Your task to perform on an android device: Check the news Image 0: 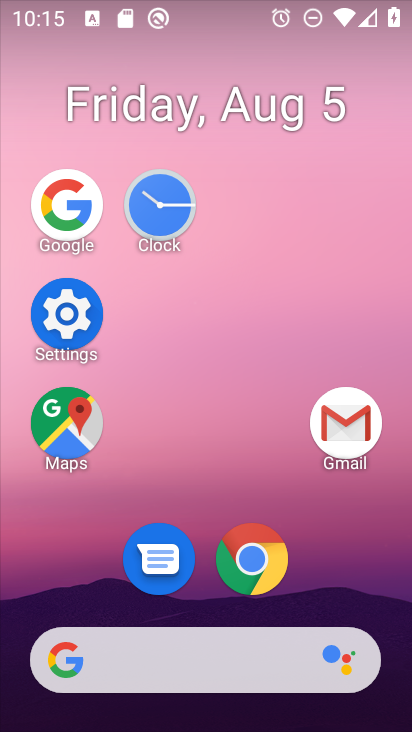
Step 0: click (75, 196)
Your task to perform on an android device: Check the news Image 1: 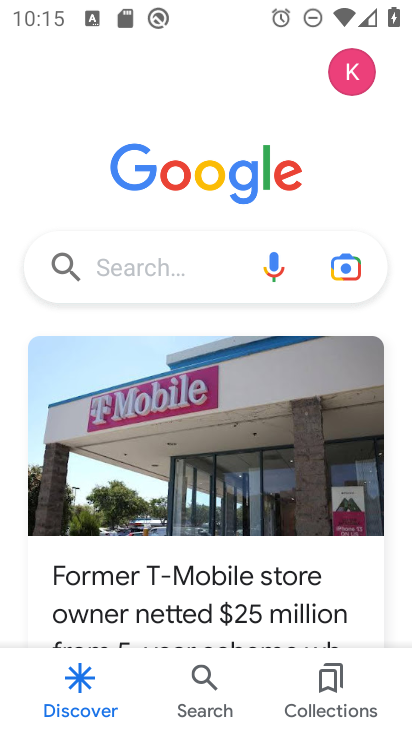
Step 1: click (168, 264)
Your task to perform on an android device: Check the news Image 2: 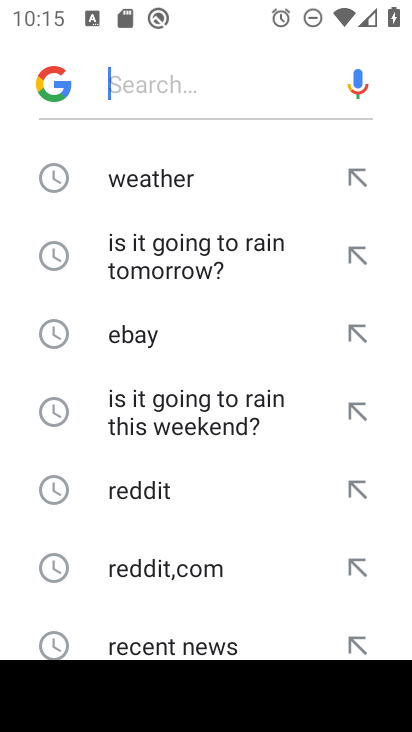
Step 2: drag from (143, 493) to (137, 210)
Your task to perform on an android device: Check the news Image 3: 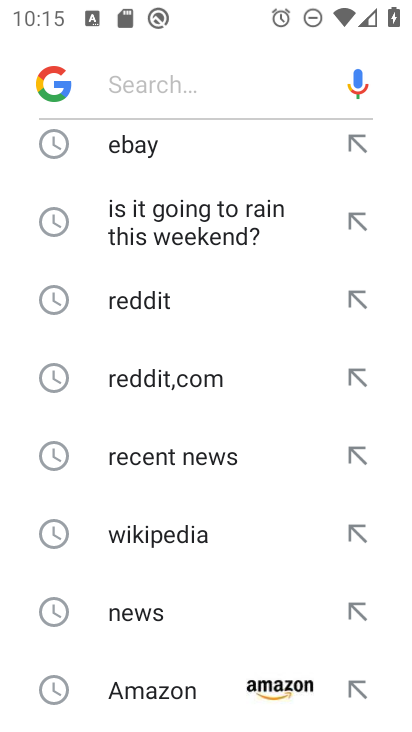
Step 3: click (158, 619)
Your task to perform on an android device: Check the news Image 4: 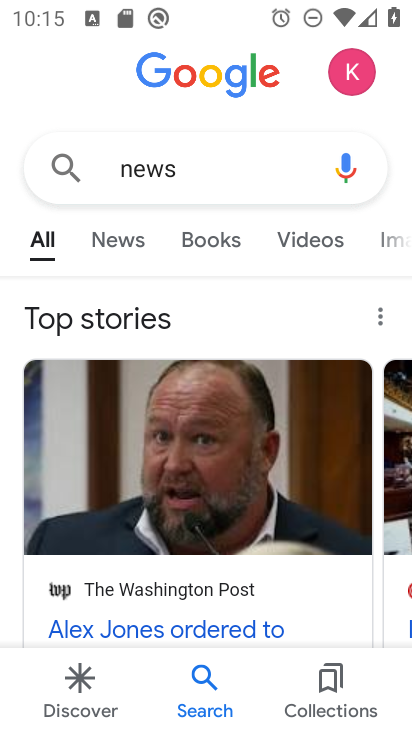
Step 4: task complete